Your task to perform on an android device: open app "Grab" Image 0: 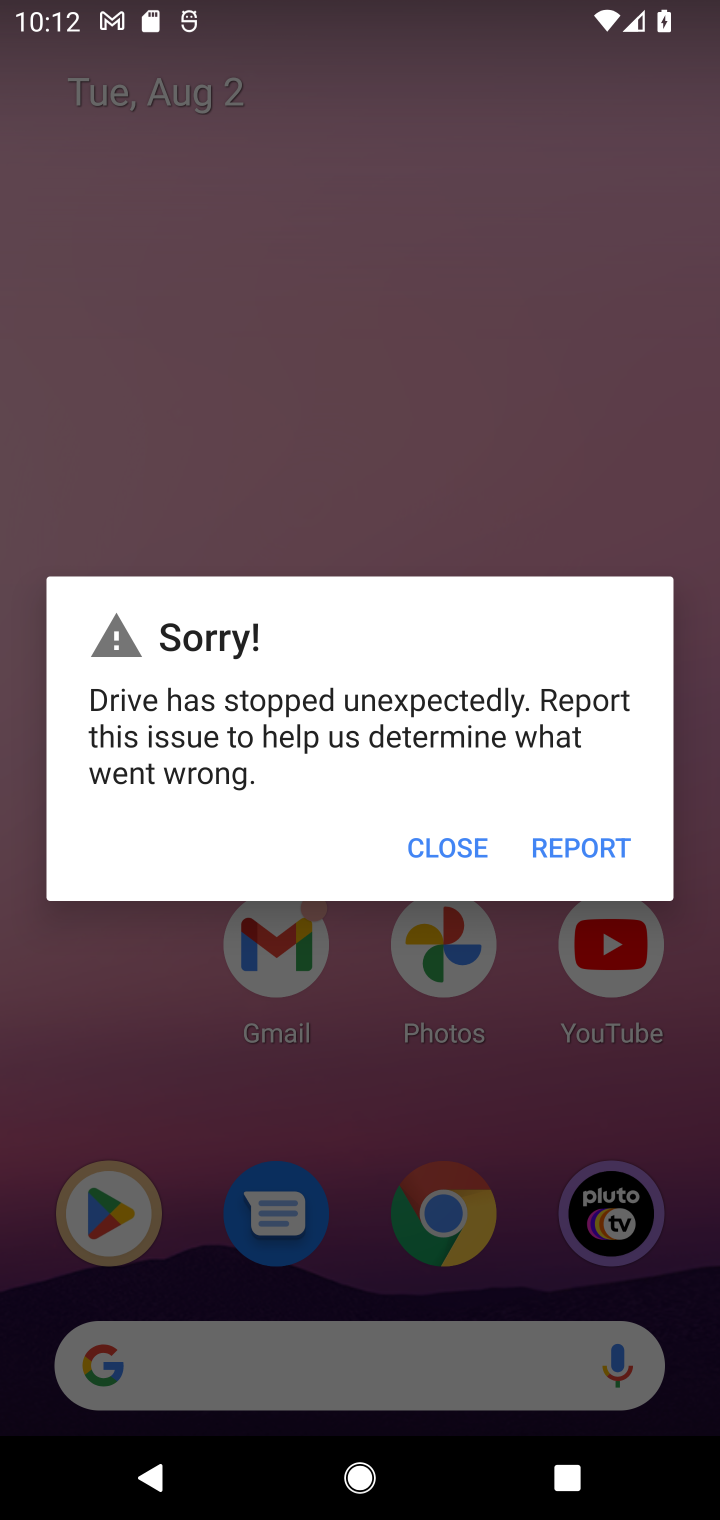
Step 0: press home button
Your task to perform on an android device: open app "Grab" Image 1: 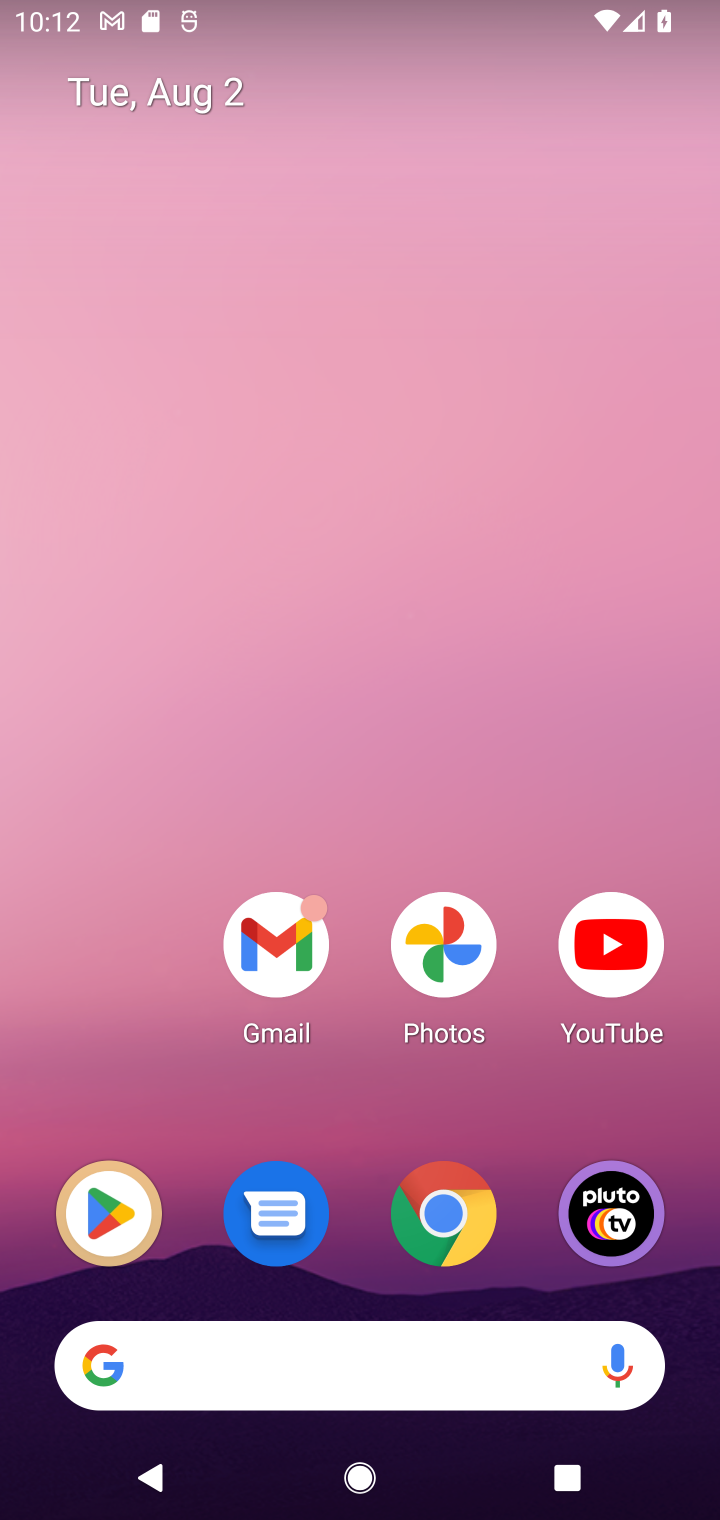
Step 1: click (90, 1193)
Your task to perform on an android device: open app "Grab" Image 2: 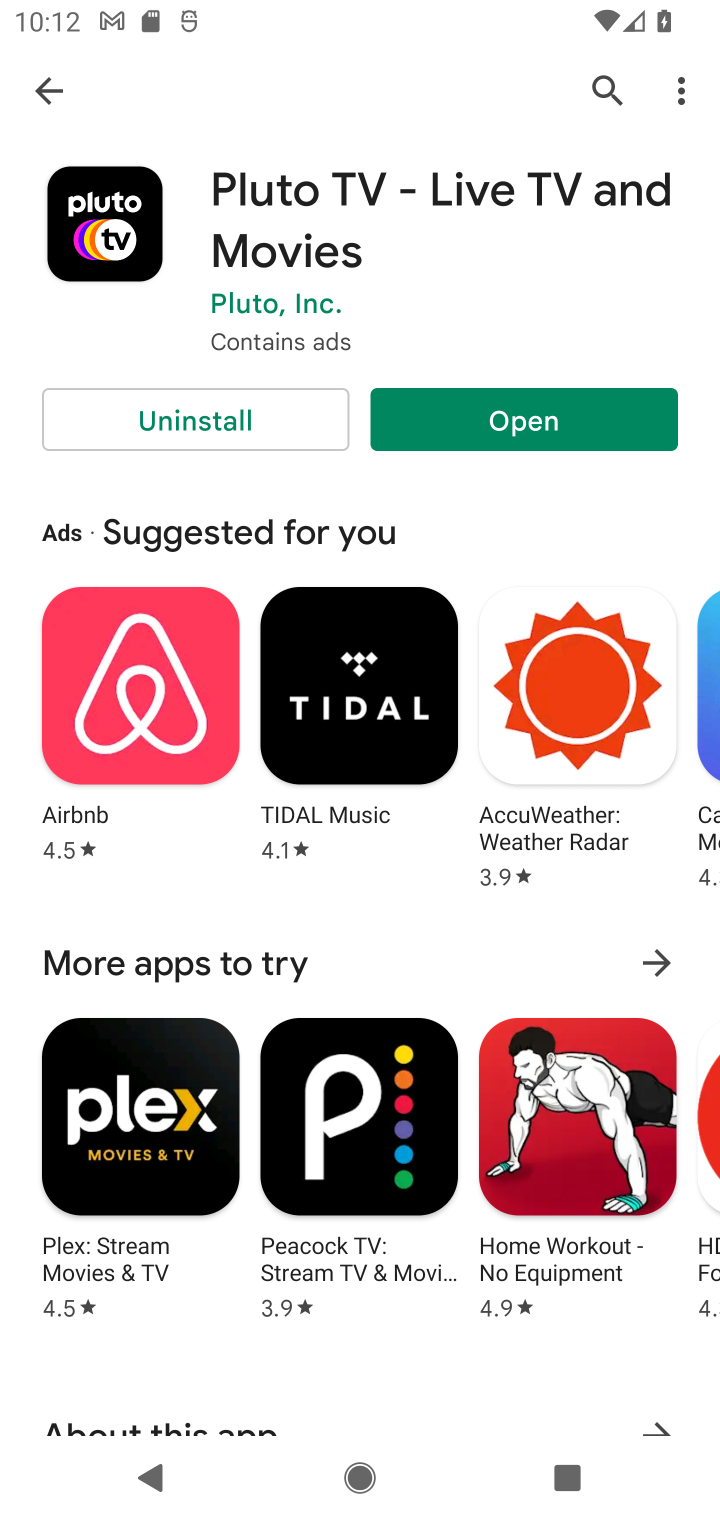
Step 2: click (50, 96)
Your task to perform on an android device: open app "Grab" Image 3: 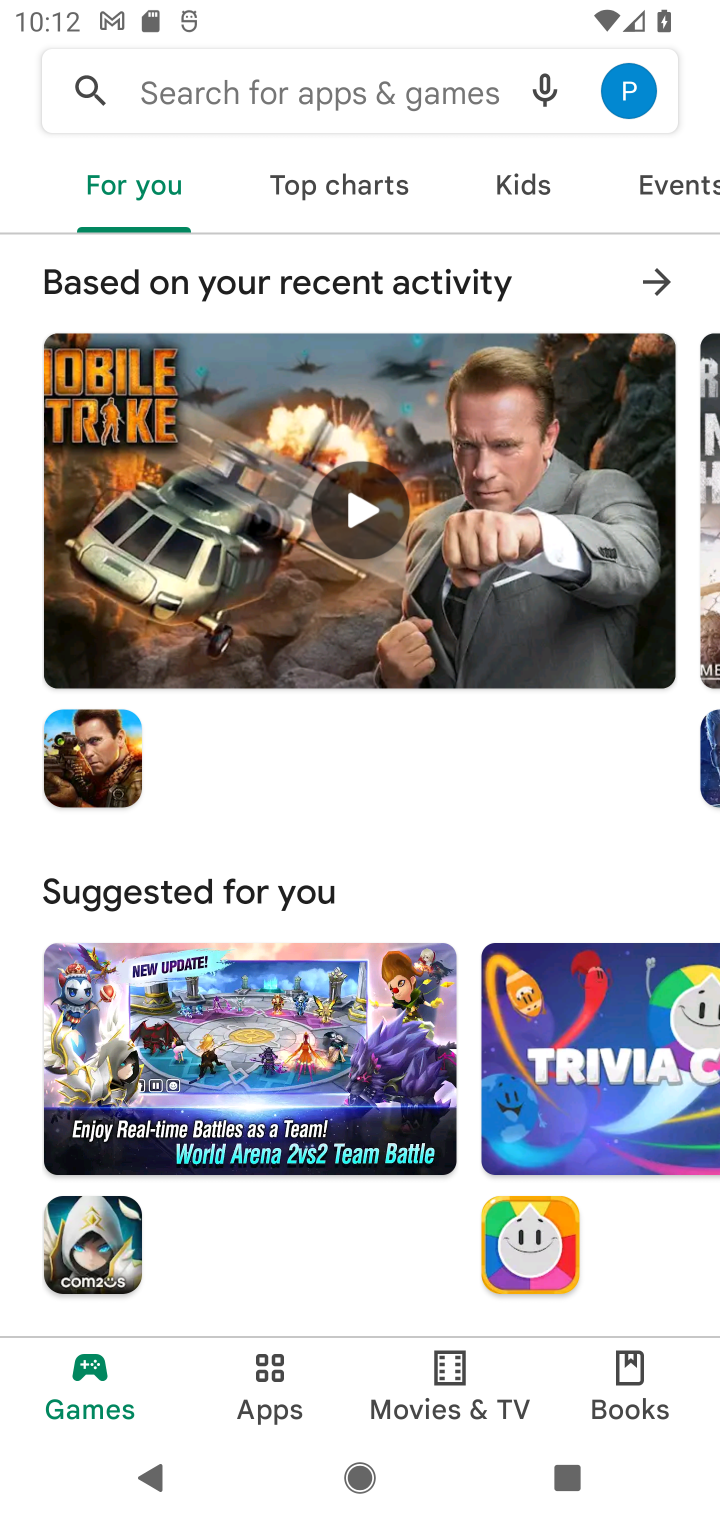
Step 3: click (323, 90)
Your task to perform on an android device: open app "Grab" Image 4: 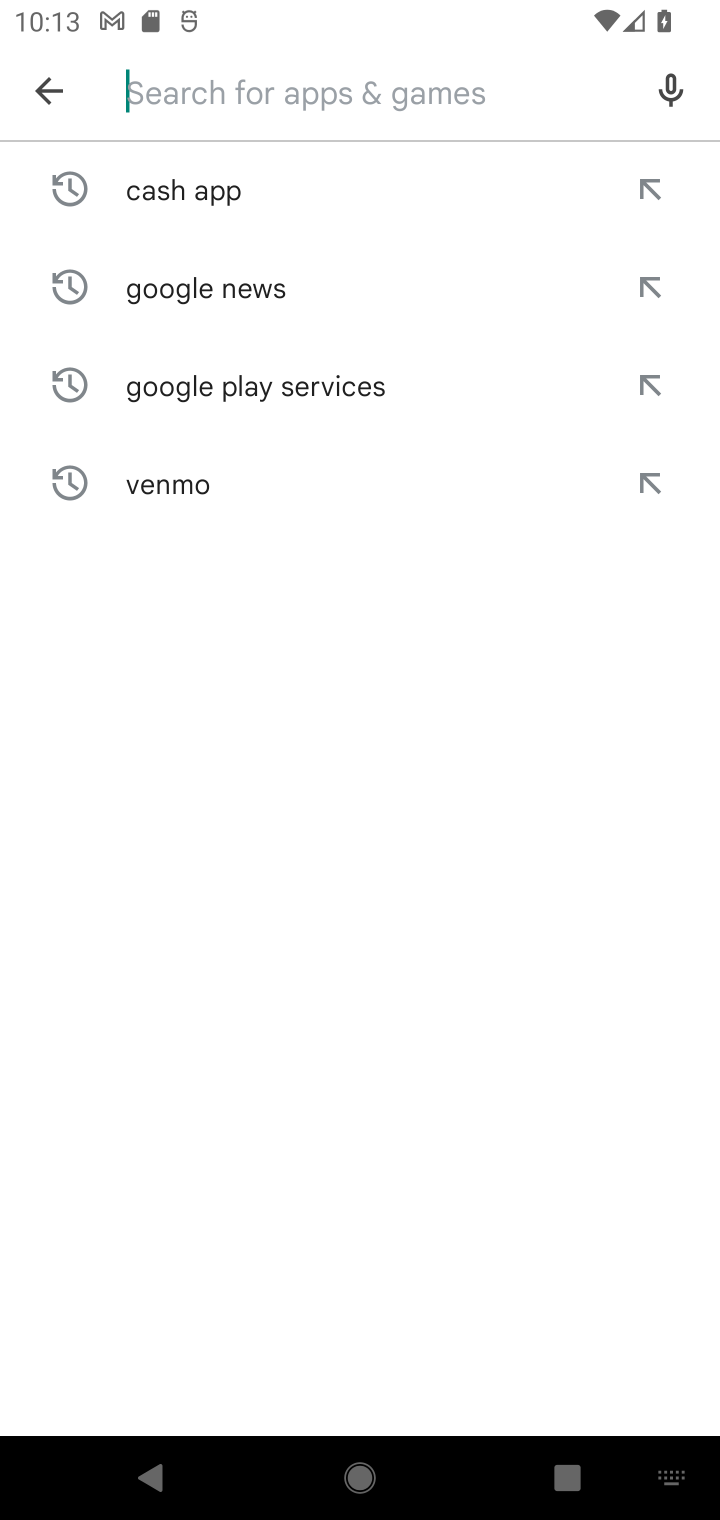
Step 4: type "Grab"
Your task to perform on an android device: open app "Grab" Image 5: 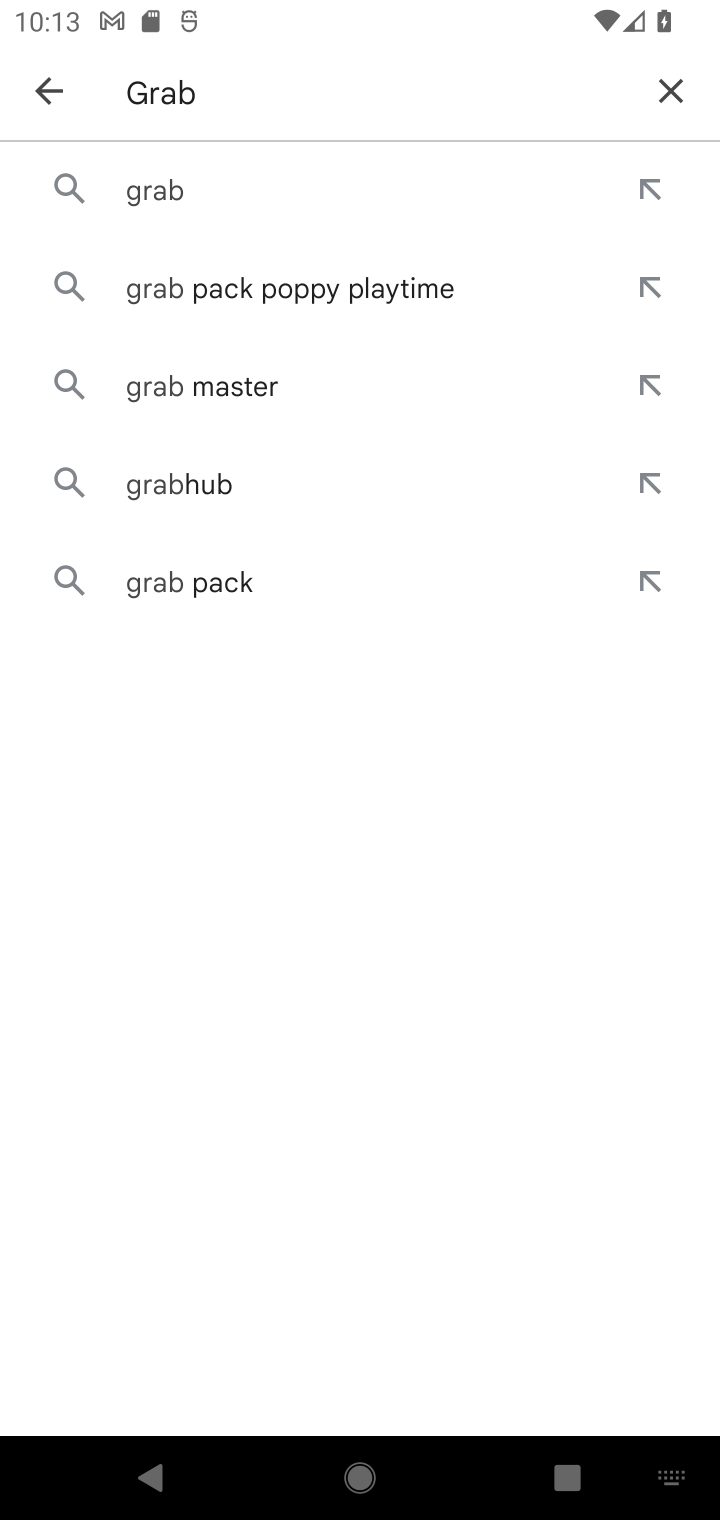
Step 5: click (173, 178)
Your task to perform on an android device: open app "Grab" Image 6: 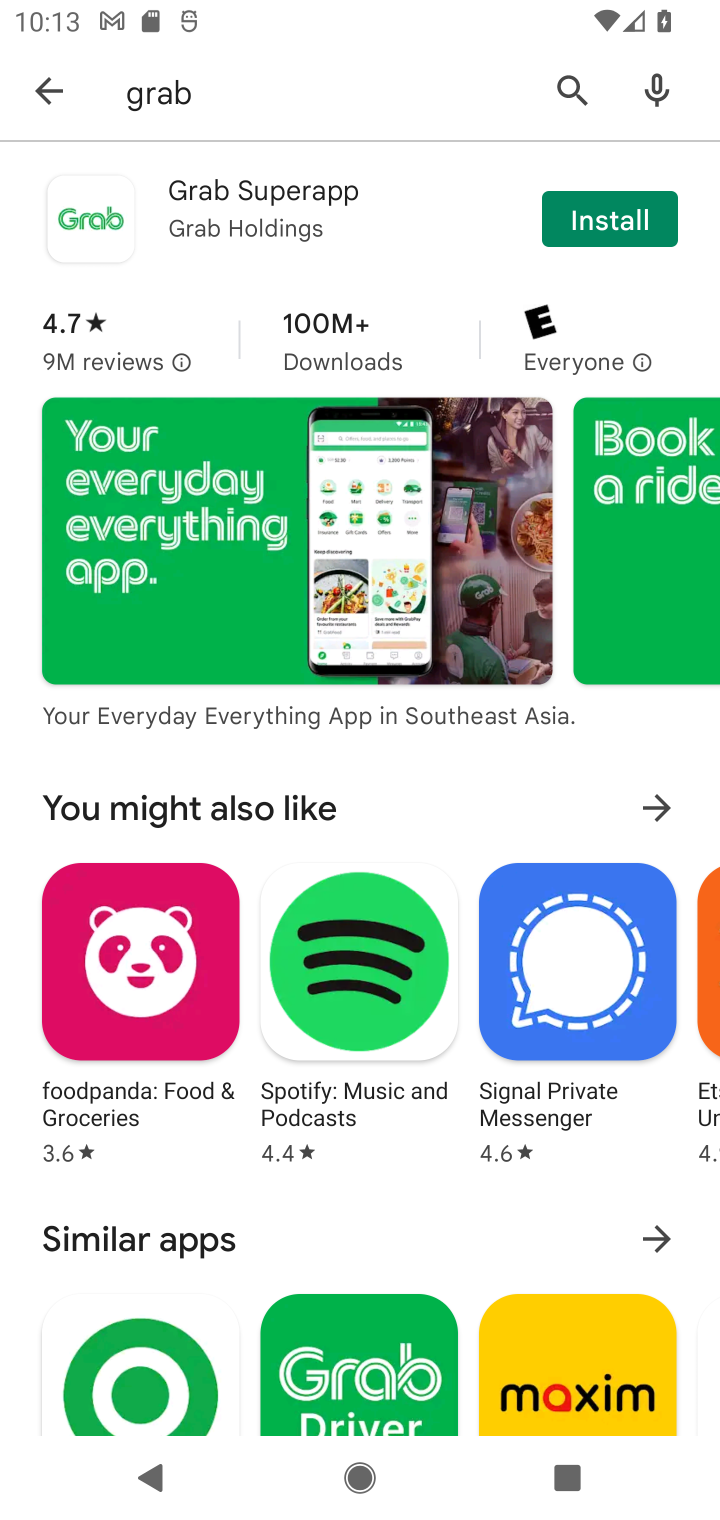
Step 6: click (601, 215)
Your task to perform on an android device: open app "Grab" Image 7: 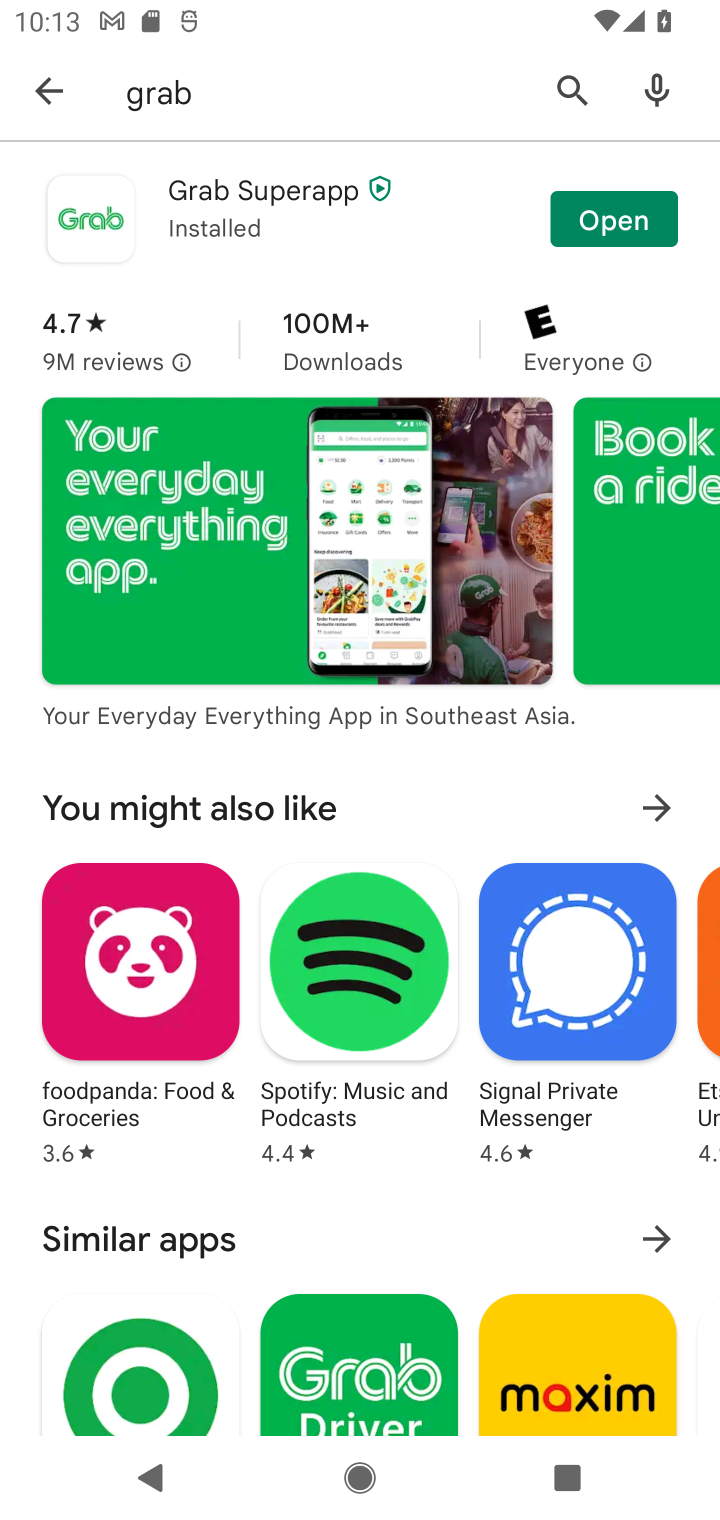
Step 7: click (603, 211)
Your task to perform on an android device: open app "Grab" Image 8: 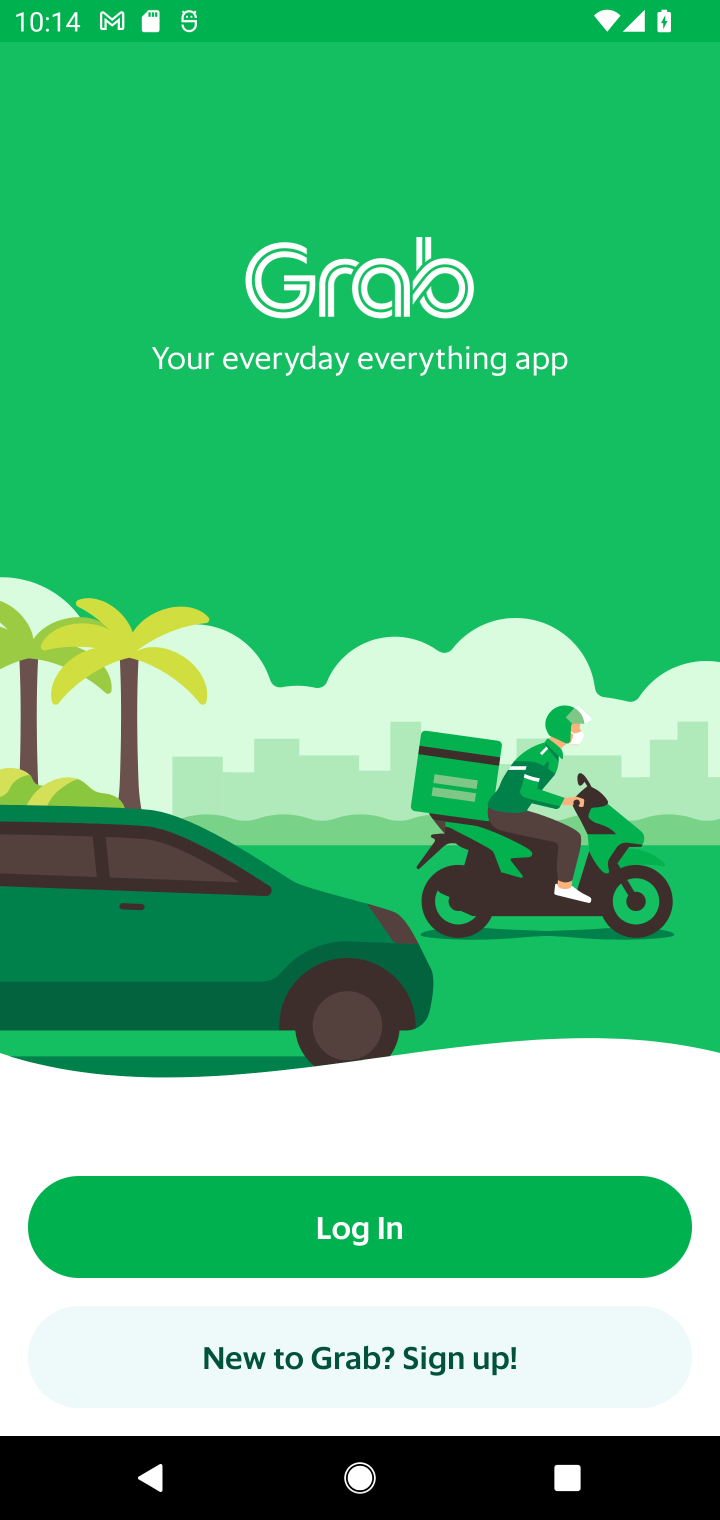
Step 8: task complete